Your task to perform on an android device: turn vacation reply on in the gmail app Image 0: 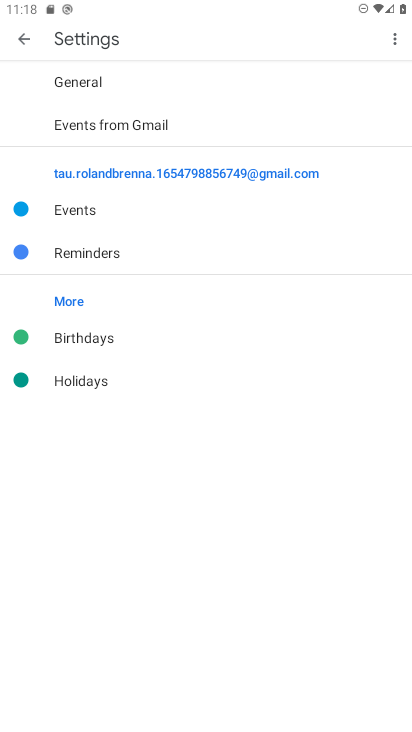
Step 0: press home button
Your task to perform on an android device: turn vacation reply on in the gmail app Image 1: 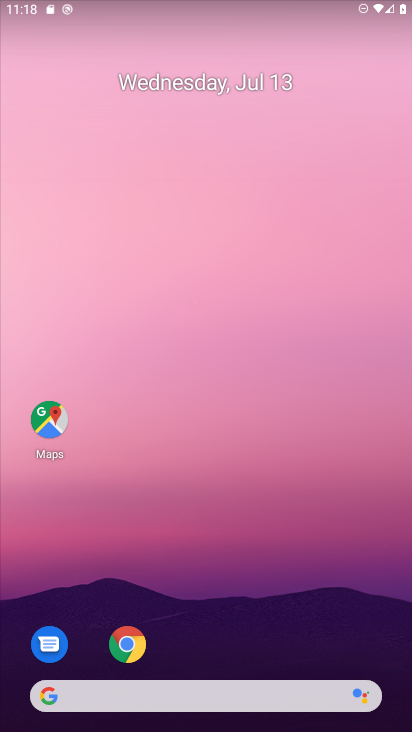
Step 1: drag from (236, 552) to (157, 139)
Your task to perform on an android device: turn vacation reply on in the gmail app Image 2: 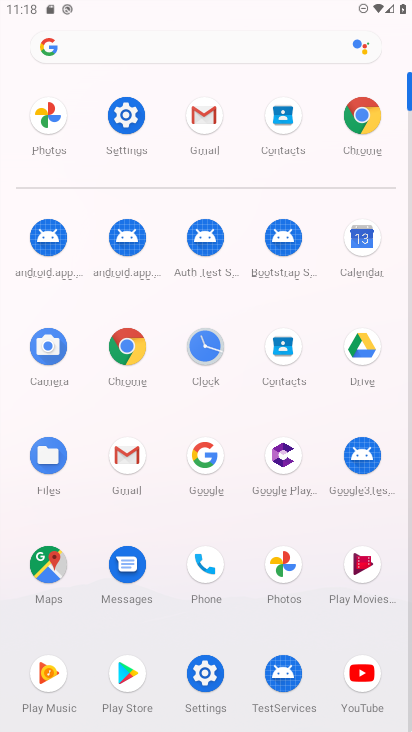
Step 2: click (126, 460)
Your task to perform on an android device: turn vacation reply on in the gmail app Image 3: 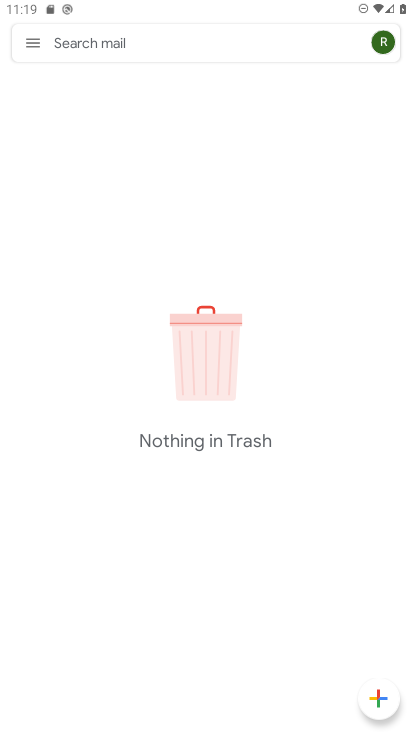
Step 3: click (31, 42)
Your task to perform on an android device: turn vacation reply on in the gmail app Image 4: 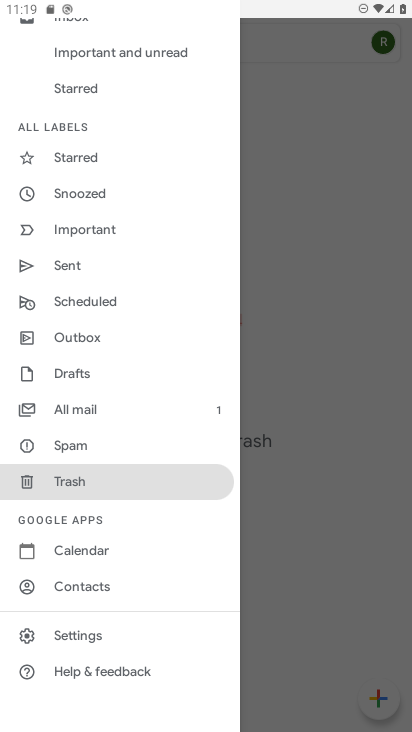
Step 4: click (86, 631)
Your task to perform on an android device: turn vacation reply on in the gmail app Image 5: 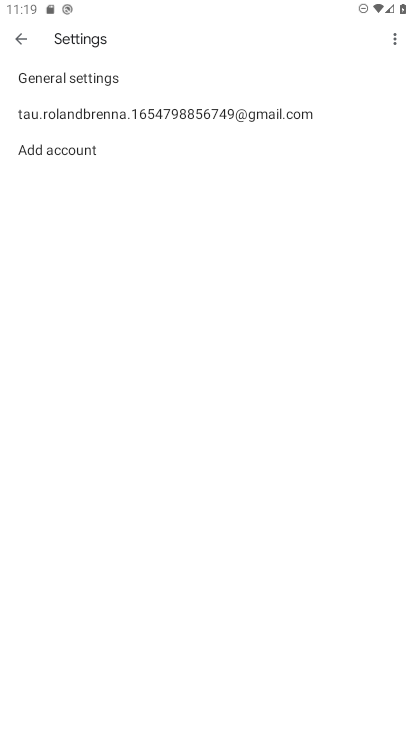
Step 5: click (77, 108)
Your task to perform on an android device: turn vacation reply on in the gmail app Image 6: 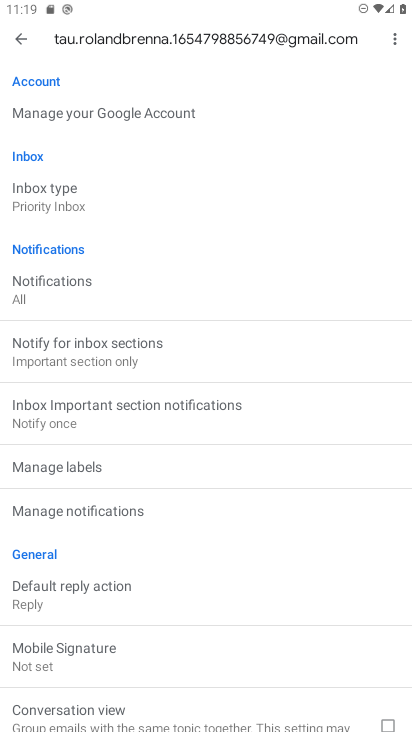
Step 6: drag from (208, 632) to (208, 336)
Your task to perform on an android device: turn vacation reply on in the gmail app Image 7: 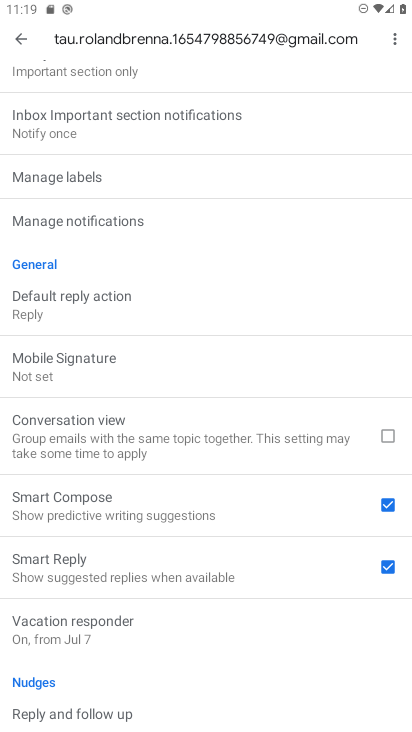
Step 7: click (72, 618)
Your task to perform on an android device: turn vacation reply on in the gmail app Image 8: 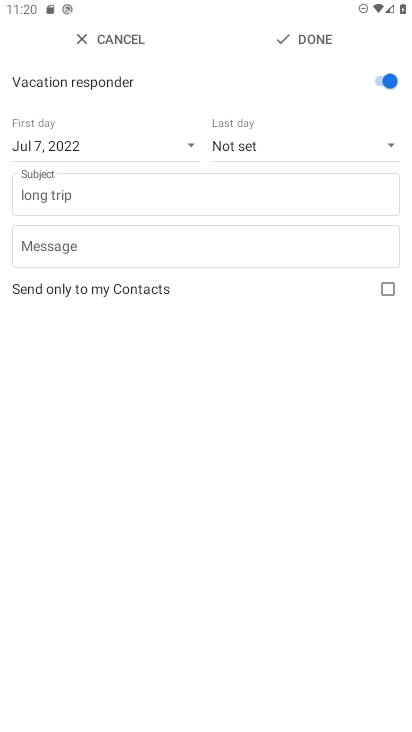
Step 8: task complete